Your task to perform on an android device: What's on my calendar tomorrow? Image 0: 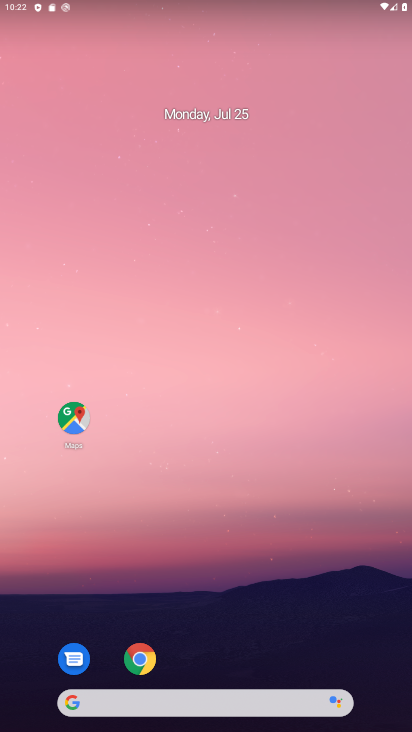
Step 0: drag from (216, 702) to (400, 257)
Your task to perform on an android device: What's on my calendar tomorrow? Image 1: 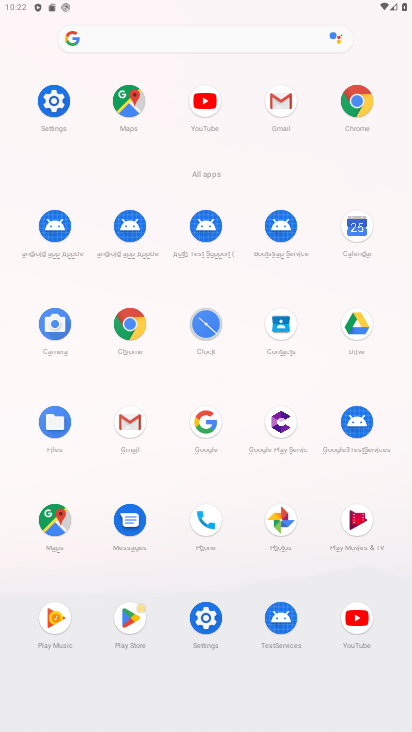
Step 1: click (351, 226)
Your task to perform on an android device: What's on my calendar tomorrow? Image 2: 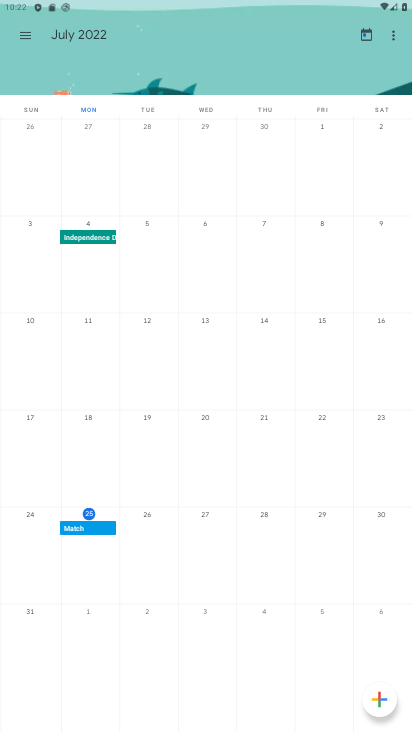
Step 2: click (147, 509)
Your task to perform on an android device: What's on my calendar tomorrow? Image 3: 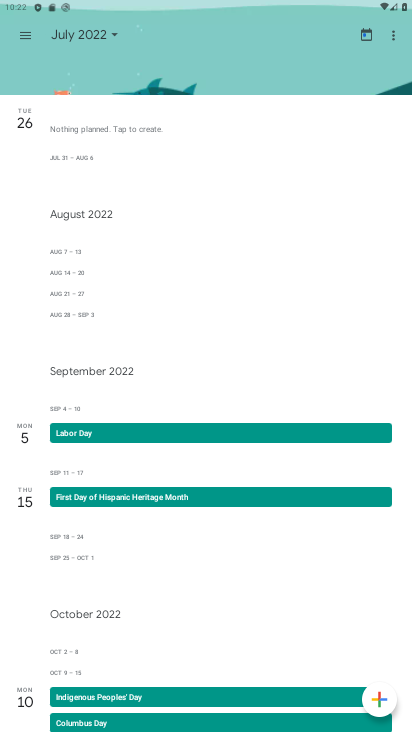
Step 3: click (21, 33)
Your task to perform on an android device: What's on my calendar tomorrow? Image 4: 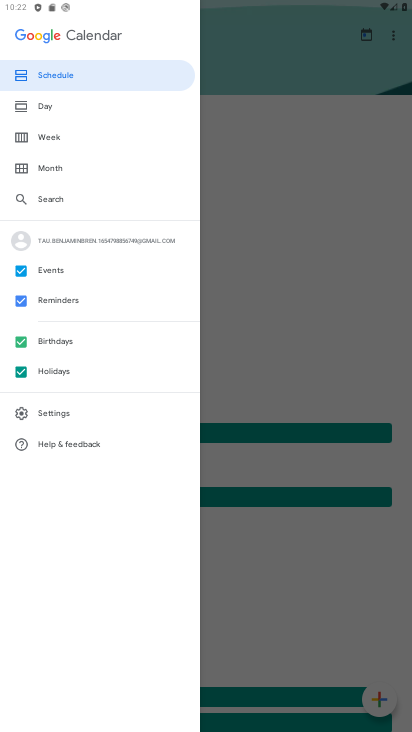
Step 4: click (22, 37)
Your task to perform on an android device: What's on my calendar tomorrow? Image 5: 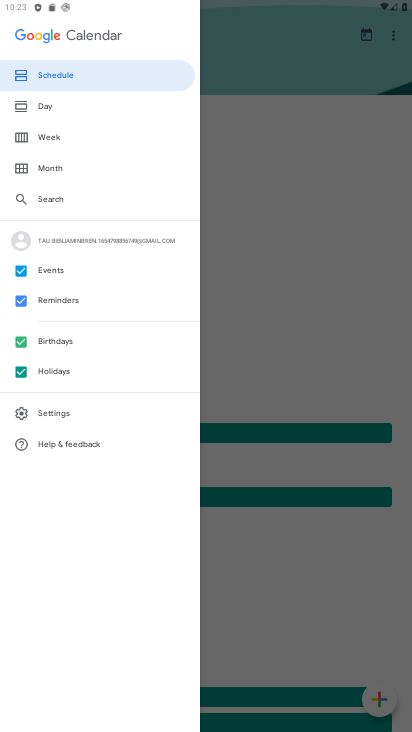
Step 5: click (51, 135)
Your task to perform on an android device: What's on my calendar tomorrow? Image 6: 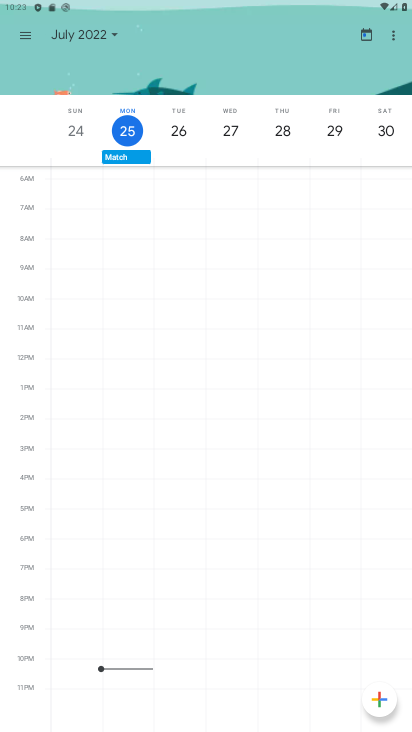
Step 6: click (173, 140)
Your task to perform on an android device: What's on my calendar tomorrow? Image 7: 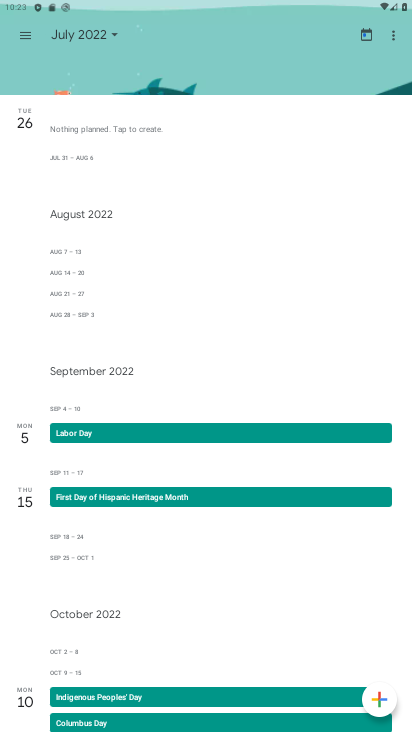
Step 7: task complete